Your task to perform on an android device: Go to location settings Image 0: 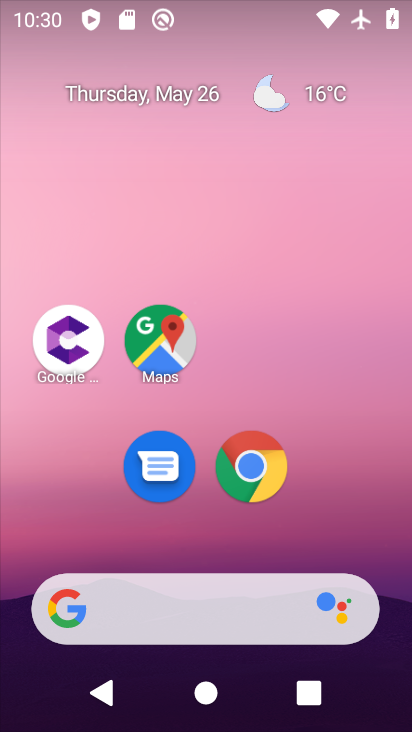
Step 0: drag from (325, 521) to (149, 12)
Your task to perform on an android device: Go to location settings Image 1: 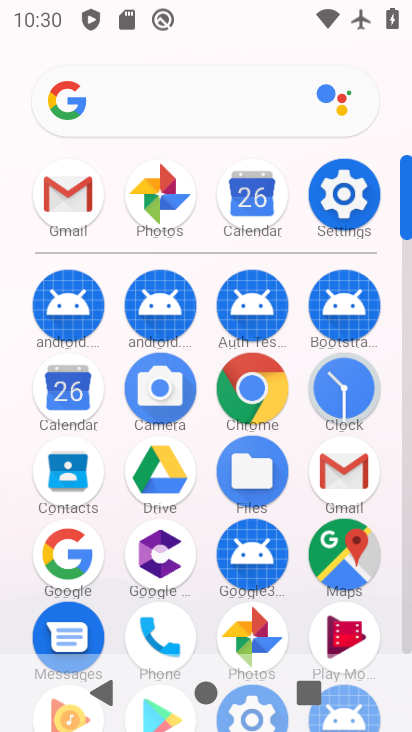
Step 1: click (340, 198)
Your task to perform on an android device: Go to location settings Image 2: 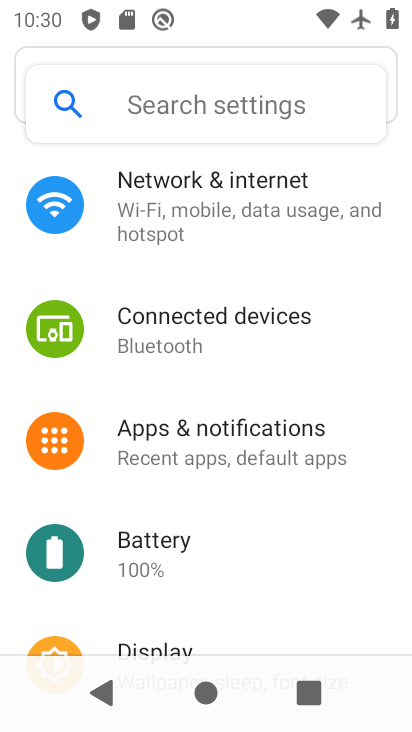
Step 2: drag from (262, 496) to (160, 170)
Your task to perform on an android device: Go to location settings Image 3: 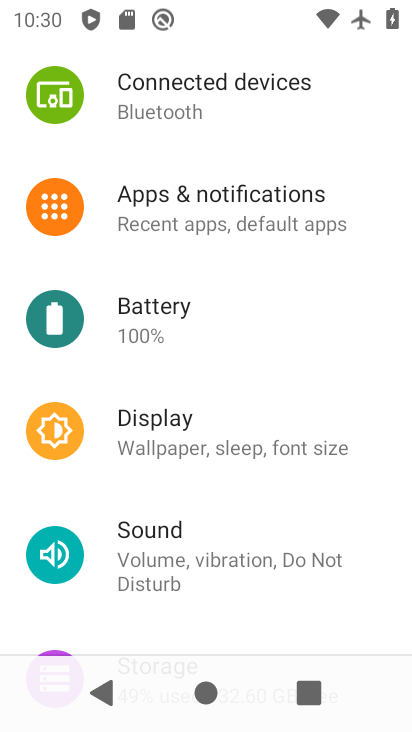
Step 3: drag from (215, 496) to (138, 196)
Your task to perform on an android device: Go to location settings Image 4: 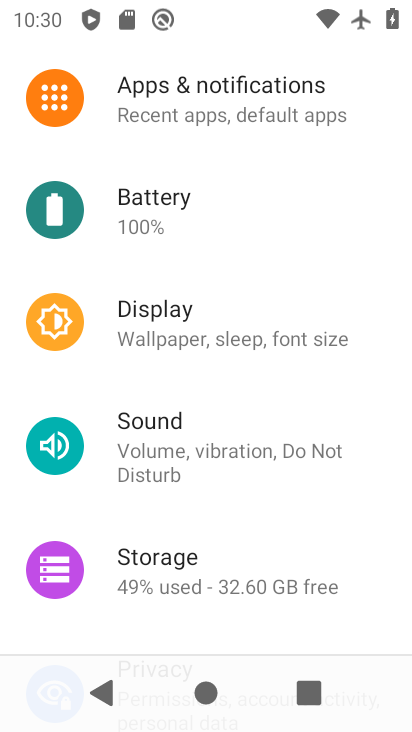
Step 4: drag from (225, 536) to (193, 218)
Your task to perform on an android device: Go to location settings Image 5: 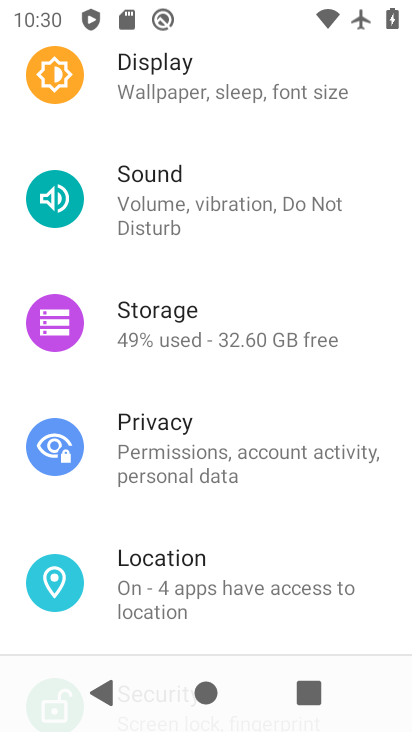
Step 5: click (173, 598)
Your task to perform on an android device: Go to location settings Image 6: 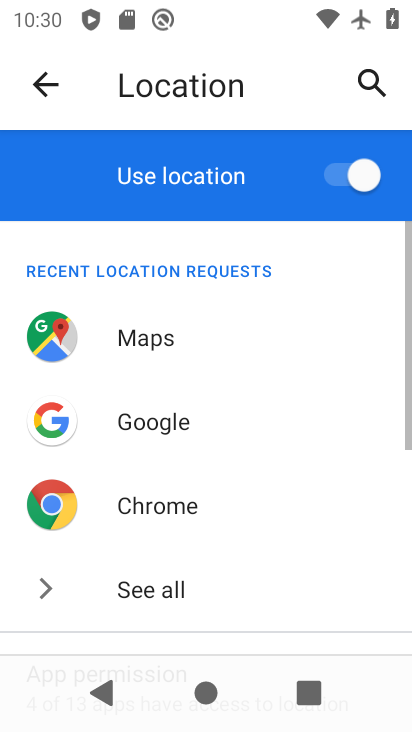
Step 6: task complete